Your task to perform on an android device: Open the stopwatch Image 0: 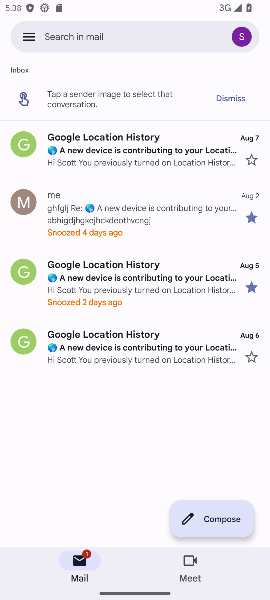
Step 0: press home button
Your task to perform on an android device: Open the stopwatch Image 1: 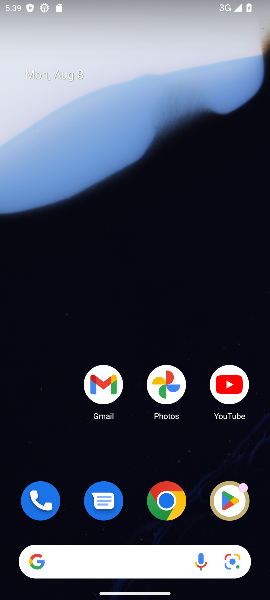
Step 1: click (24, 578)
Your task to perform on an android device: Open the stopwatch Image 2: 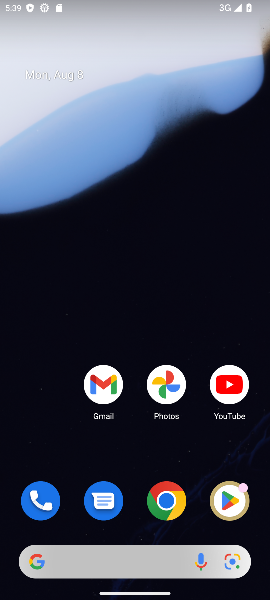
Step 2: drag from (24, 578) to (96, 338)
Your task to perform on an android device: Open the stopwatch Image 3: 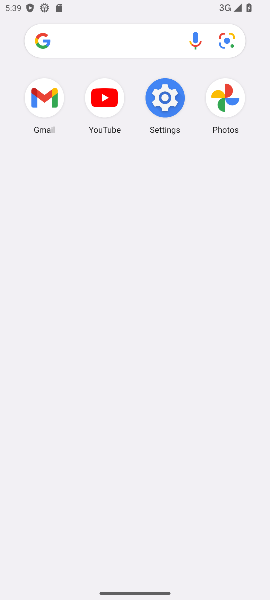
Step 3: press home button
Your task to perform on an android device: Open the stopwatch Image 4: 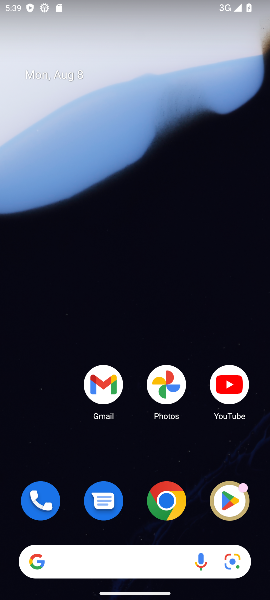
Step 4: click (17, 538)
Your task to perform on an android device: Open the stopwatch Image 5: 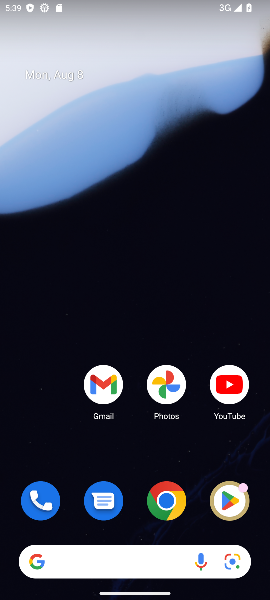
Step 5: drag from (17, 538) to (123, 157)
Your task to perform on an android device: Open the stopwatch Image 6: 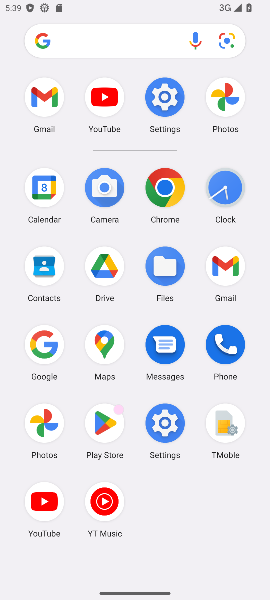
Step 6: click (234, 212)
Your task to perform on an android device: Open the stopwatch Image 7: 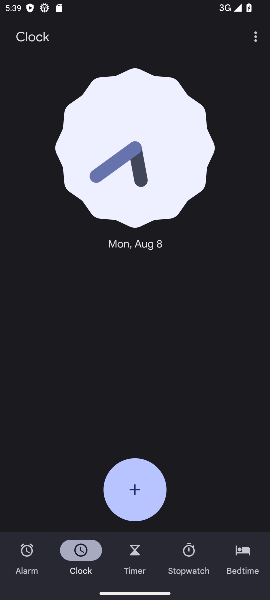
Step 7: click (183, 549)
Your task to perform on an android device: Open the stopwatch Image 8: 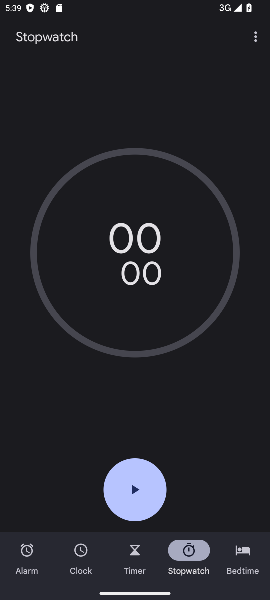
Step 8: click (127, 258)
Your task to perform on an android device: Open the stopwatch Image 9: 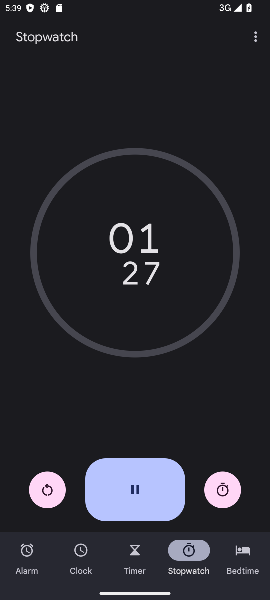
Step 9: click (127, 258)
Your task to perform on an android device: Open the stopwatch Image 10: 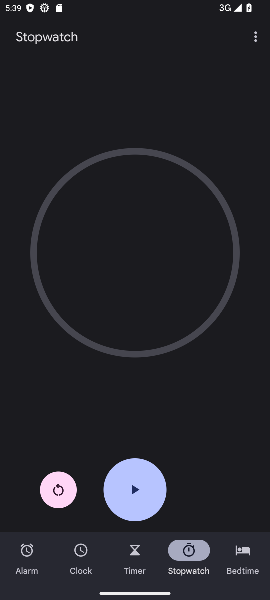
Step 10: task complete